Your task to perform on an android device: Go to location settings Image 0: 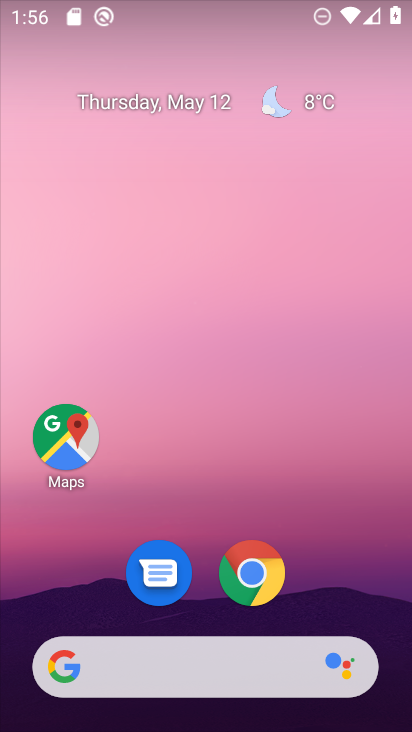
Step 0: drag from (347, 674) to (195, 137)
Your task to perform on an android device: Go to location settings Image 1: 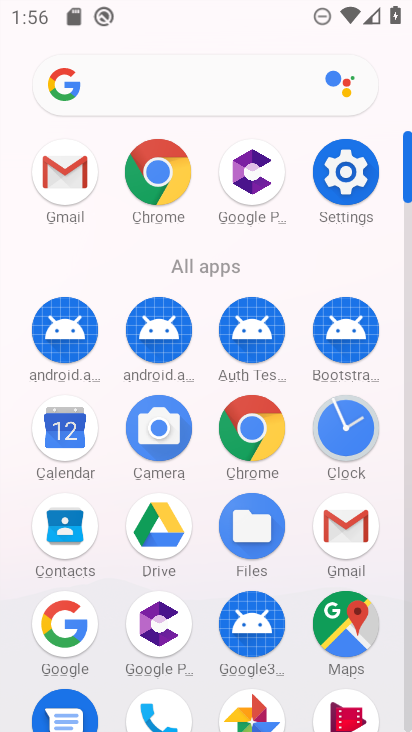
Step 1: click (332, 174)
Your task to perform on an android device: Go to location settings Image 2: 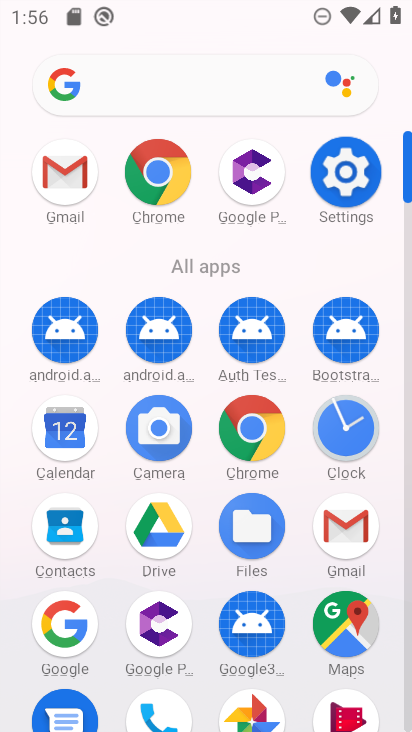
Step 2: click (333, 173)
Your task to perform on an android device: Go to location settings Image 3: 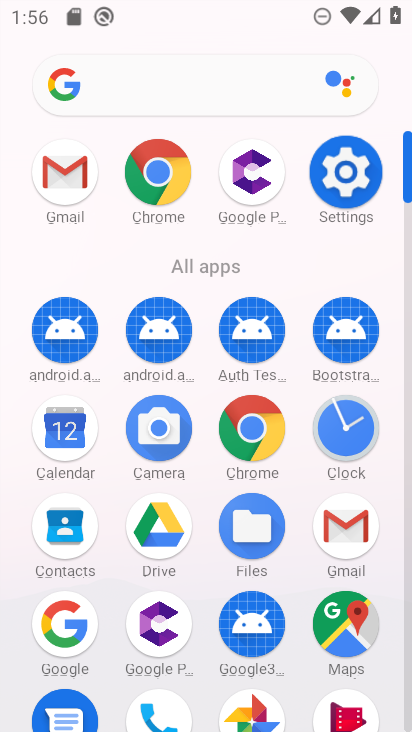
Step 3: click (334, 173)
Your task to perform on an android device: Go to location settings Image 4: 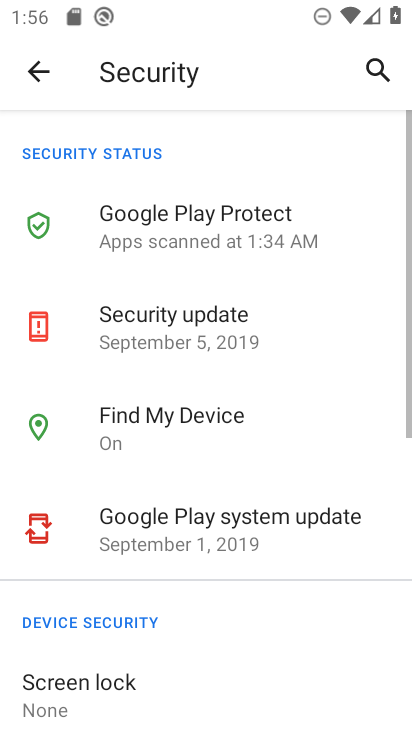
Step 4: click (41, 76)
Your task to perform on an android device: Go to location settings Image 5: 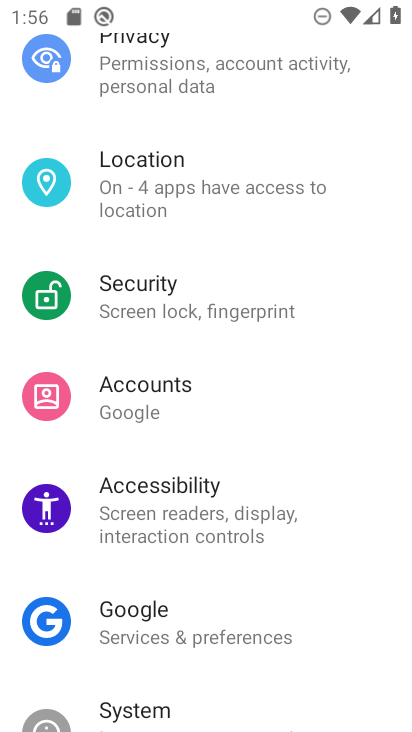
Step 5: drag from (222, 604) to (180, 161)
Your task to perform on an android device: Go to location settings Image 6: 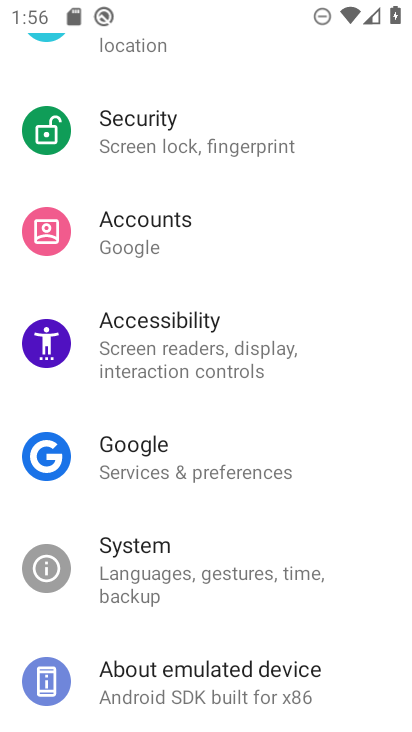
Step 6: drag from (180, 157) to (325, 686)
Your task to perform on an android device: Go to location settings Image 7: 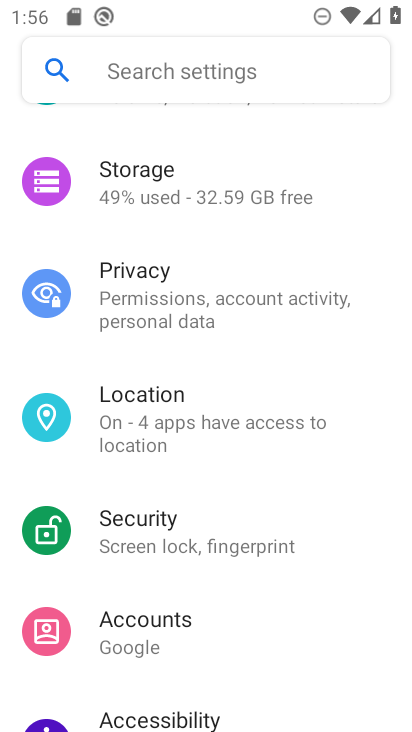
Step 7: drag from (147, 277) to (216, 566)
Your task to perform on an android device: Go to location settings Image 8: 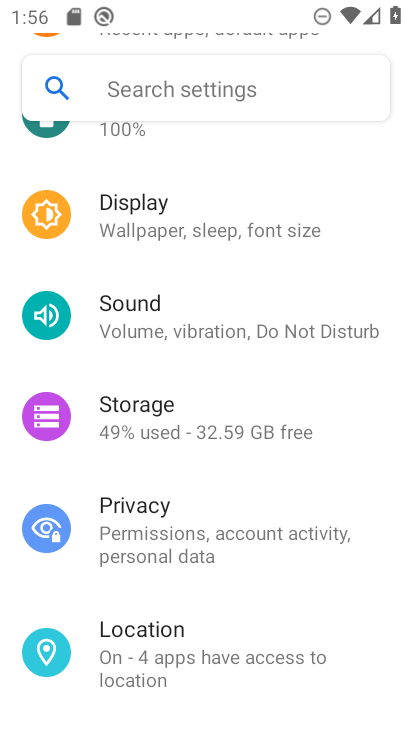
Step 8: click (155, 656)
Your task to perform on an android device: Go to location settings Image 9: 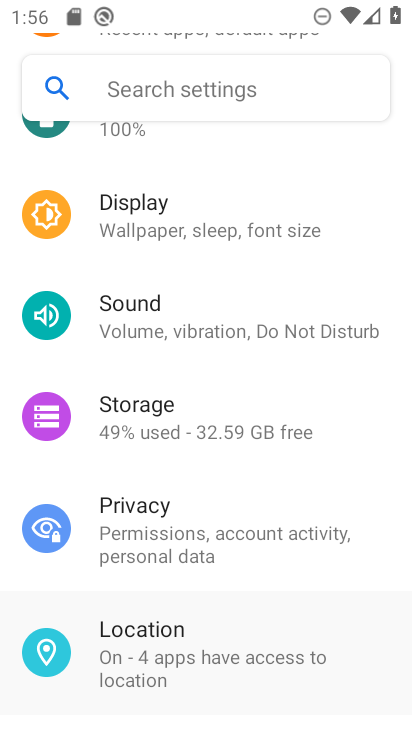
Step 9: click (155, 657)
Your task to perform on an android device: Go to location settings Image 10: 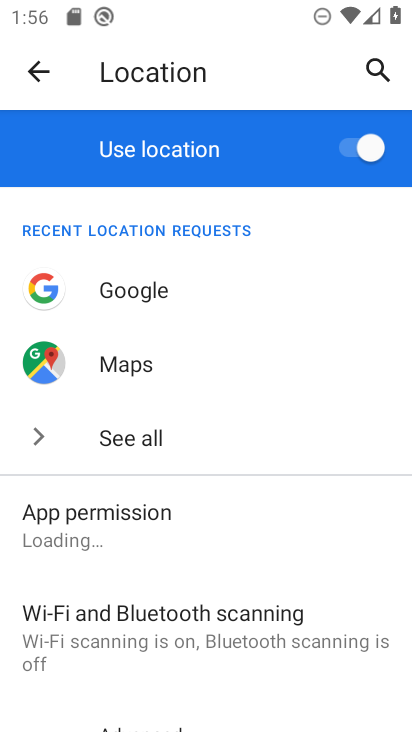
Step 10: drag from (177, 542) to (219, 185)
Your task to perform on an android device: Go to location settings Image 11: 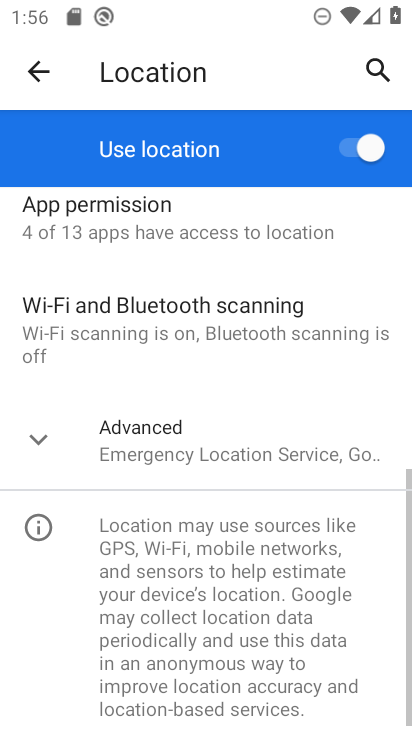
Step 11: drag from (139, 339) to (293, 692)
Your task to perform on an android device: Go to location settings Image 12: 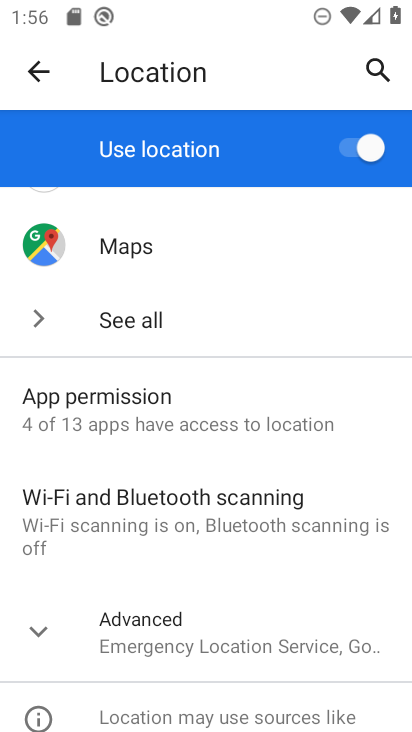
Step 12: click (94, 410)
Your task to perform on an android device: Go to location settings Image 13: 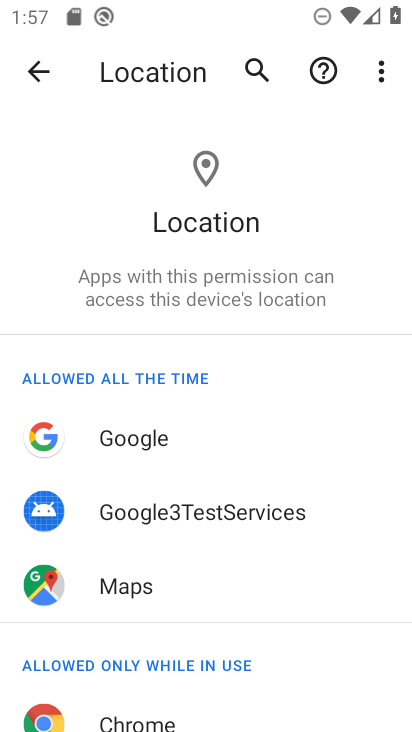
Step 13: task complete